Your task to perform on an android device: clear all cookies in the chrome app Image 0: 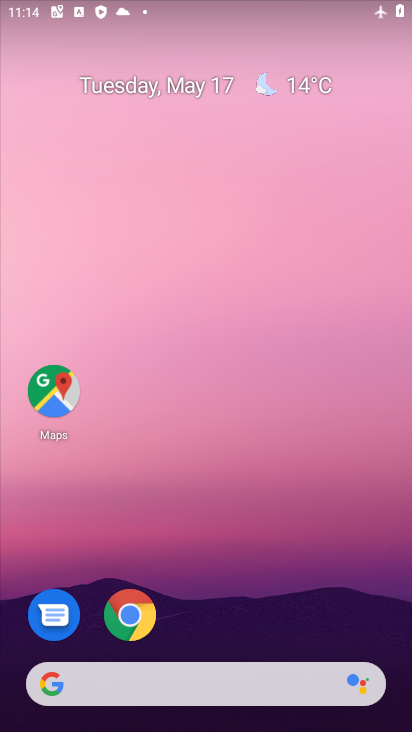
Step 0: click (128, 615)
Your task to perform on an android device: clear all cookies in the chrome app Image 1: 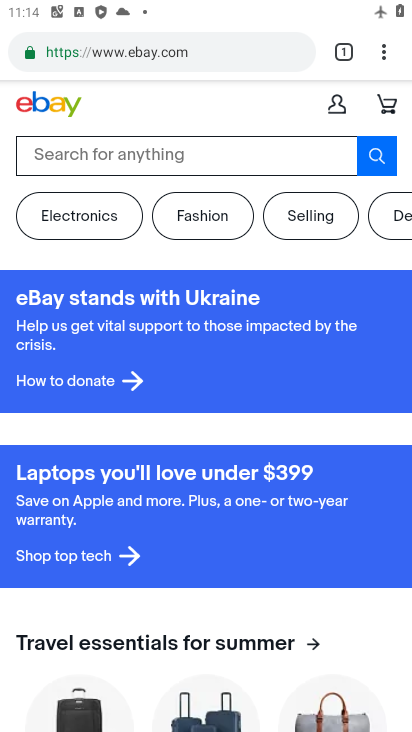
Step 1: click (384, 48)
Your task to perform on an android device: clear all cookies in the chrome app Image 2: 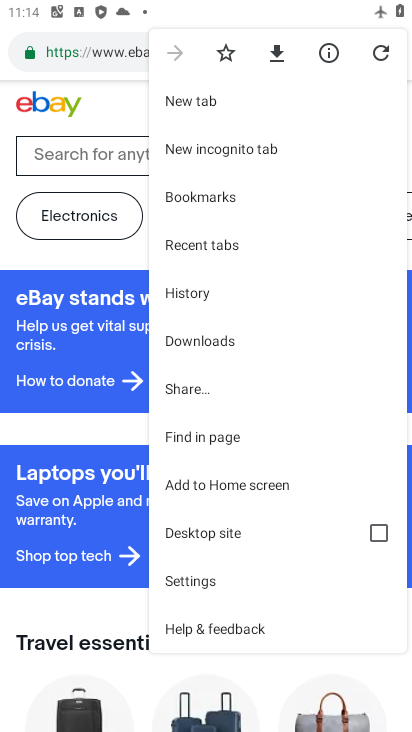
Step 2: click (193, 285)
Your task to perform on an android device: clear all cookies in the chrome app Image 3: 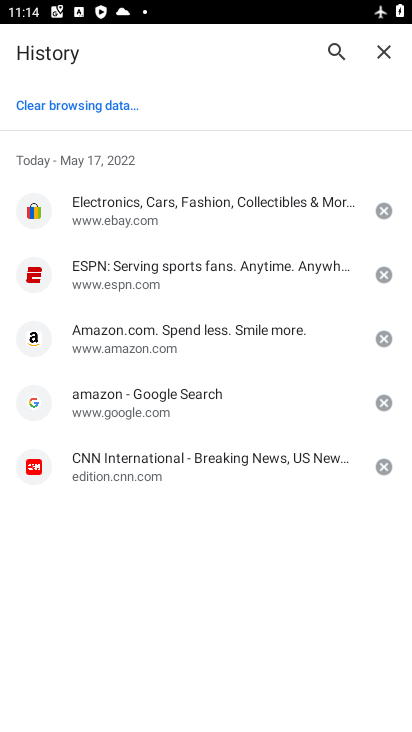
Step 3: click (75, 105)
Your task to perform on an android device: clear all cookies in the chrome app Image 4: 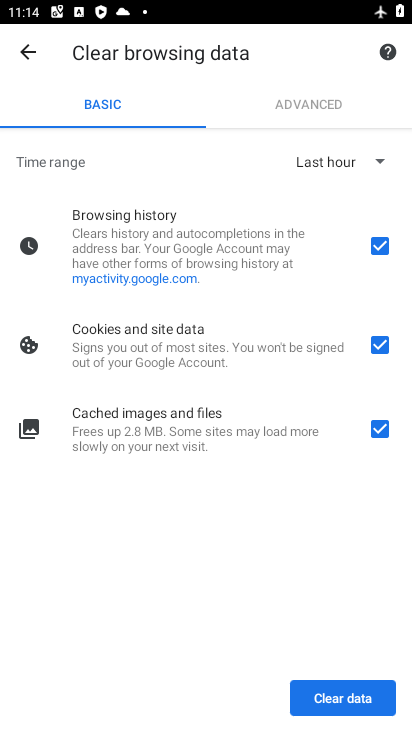
Step 4: click (384, 422)
Your task to perform on an android device: clear all cookies in the chrome app Image 5: 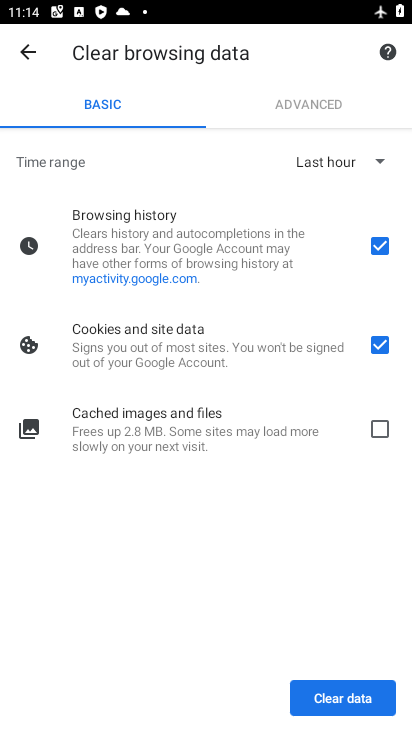
Step 5: click (383, 244)
Your task to perform on an android device: clear all cookies in the chrome app Image 6: 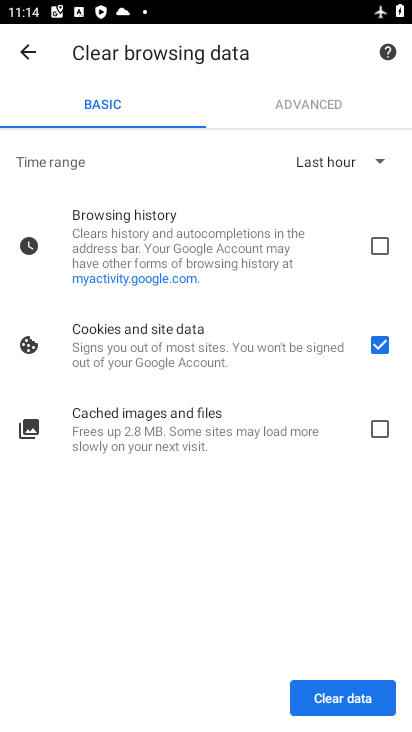
Step 6: click (343, 690)
Your task to perform on an android device: clear all cookies in the chrome app Image 7: 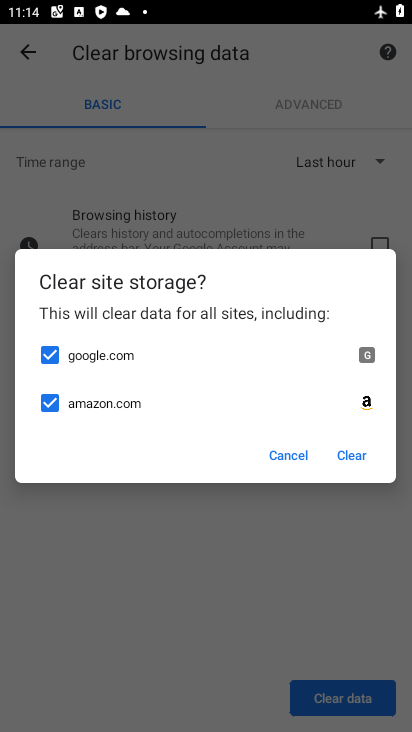
Step 7: click (354, 456)
Your task to perform on an android device: clear all cookies in the chrome app Image 8: 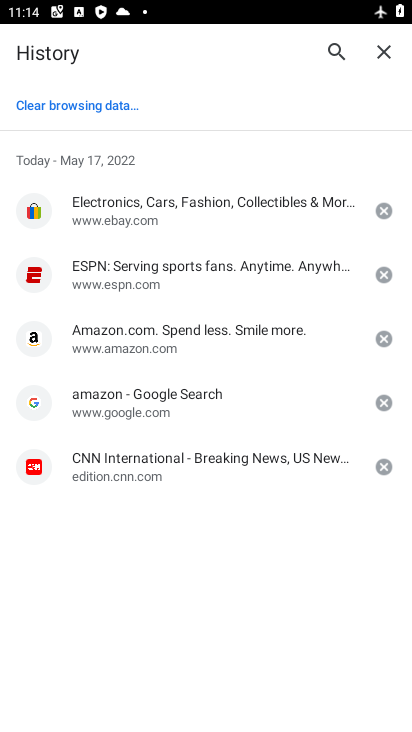
Step 8: task complete